Your task to perform on an android device: Open sound settings Image 0: 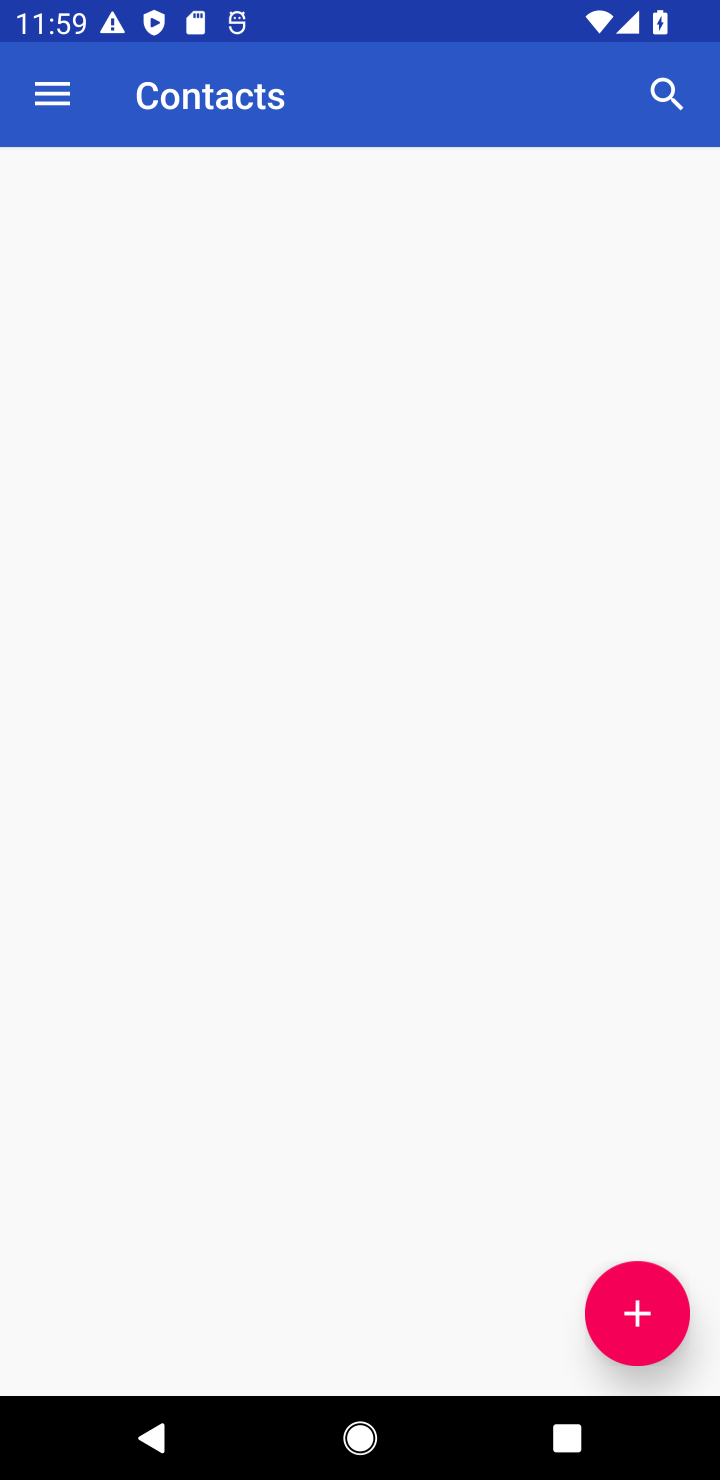
Step 0: press home button
Your task to perform on an android device: Open sound settings Image 1: 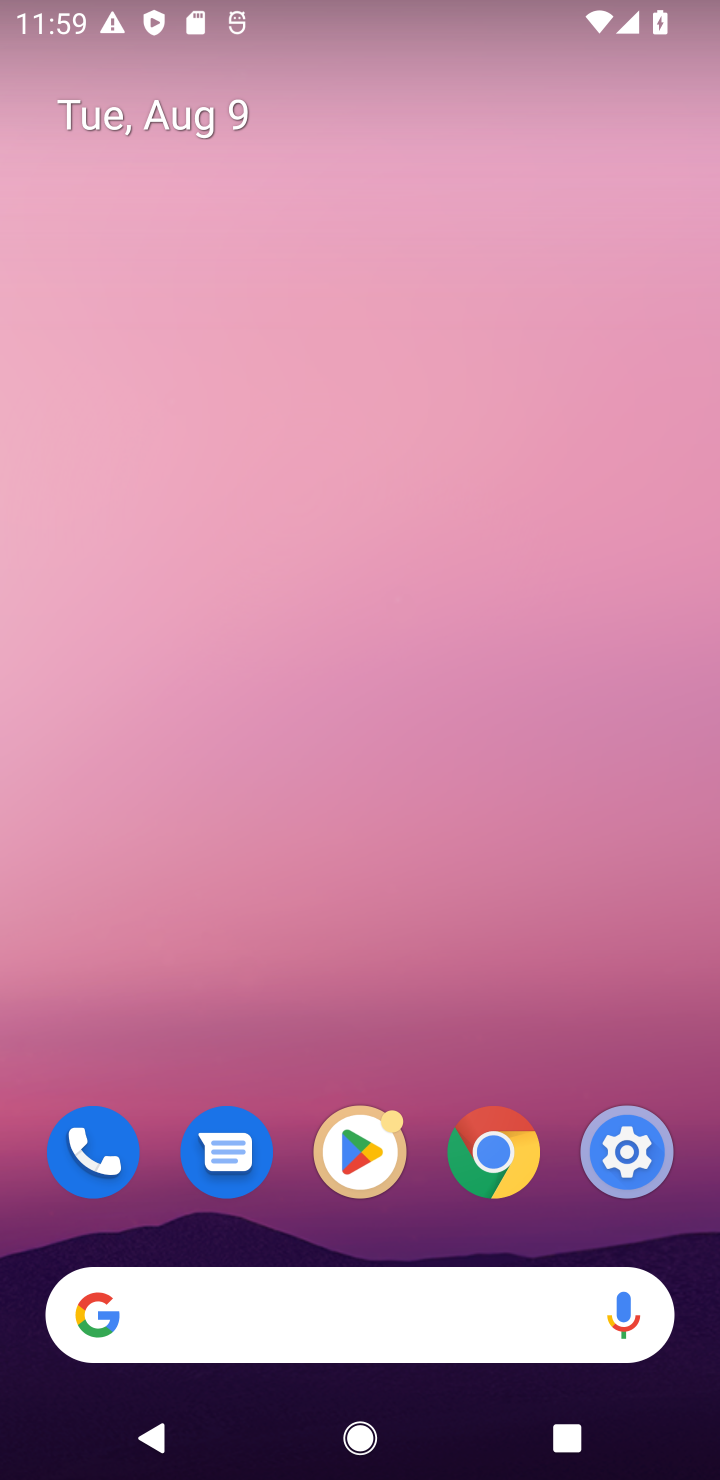
Step 1: click (626, 1134)
Your task to perform on an android device: Open sound settings Image 2: 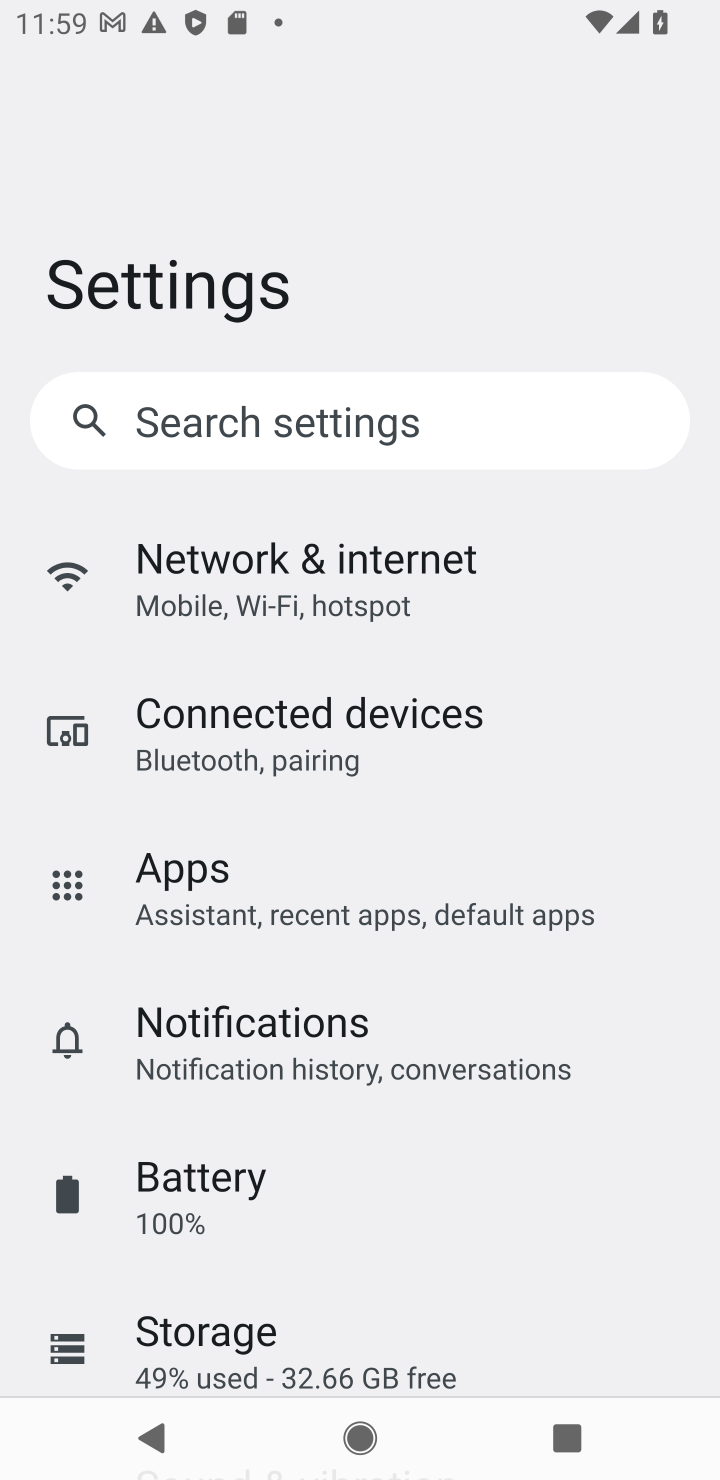
Step 2: drag from (580, 1163) to (455, 427)
Your task to perform on an android device: Open sound settings Image 3: 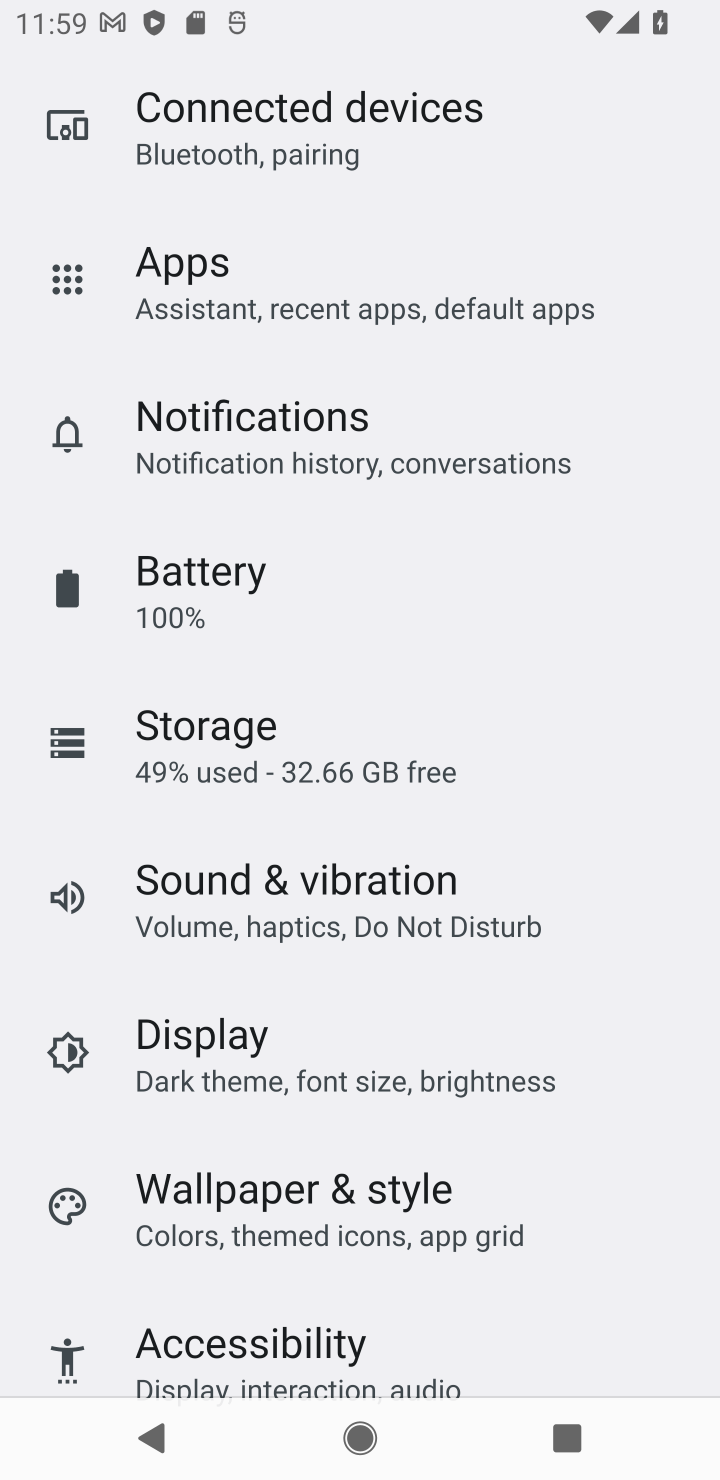
Step 3: drag from (439, 1058) to (373, 385)
Your task to perform on an android device: Open sound settings Image 4: 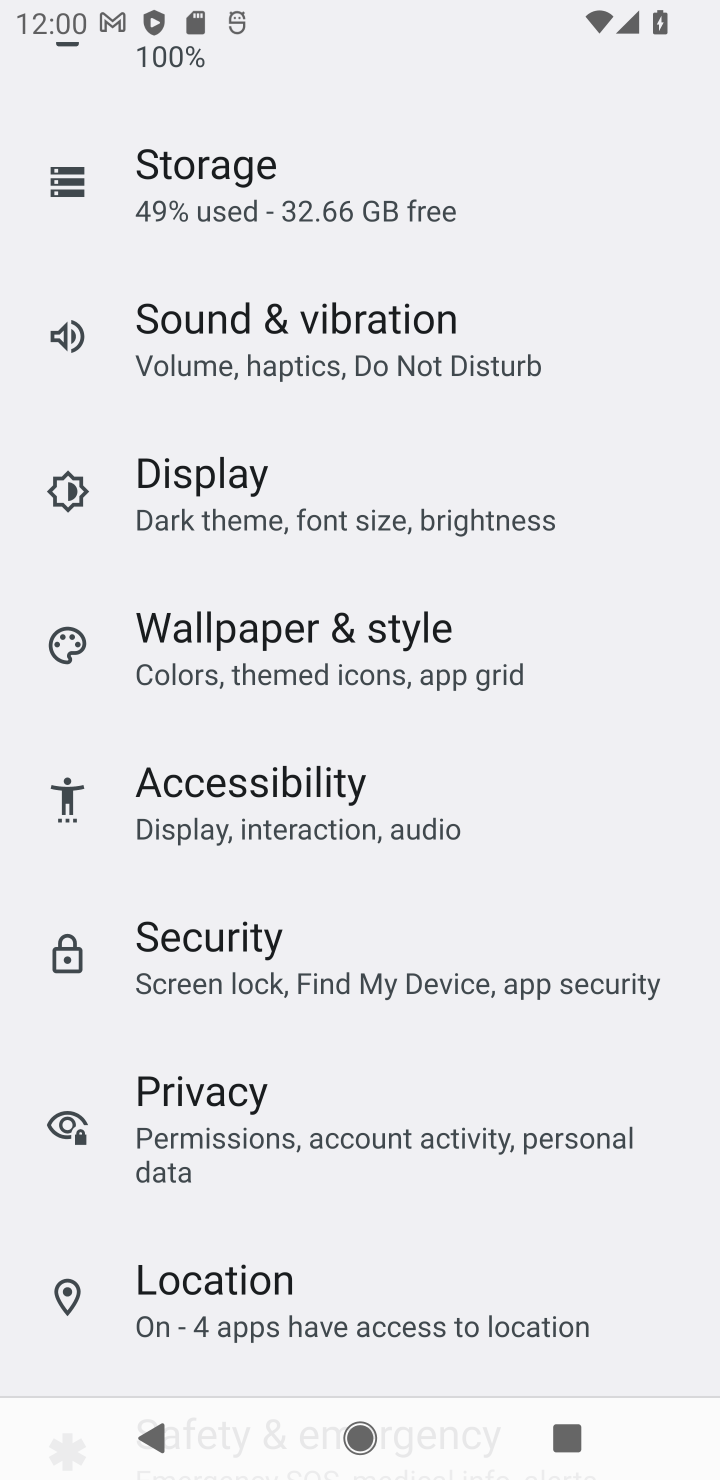
Step 4: drag from (428, 1006) to (306, 600)
Your task to perform on an android device: Open sound settings Image 5: 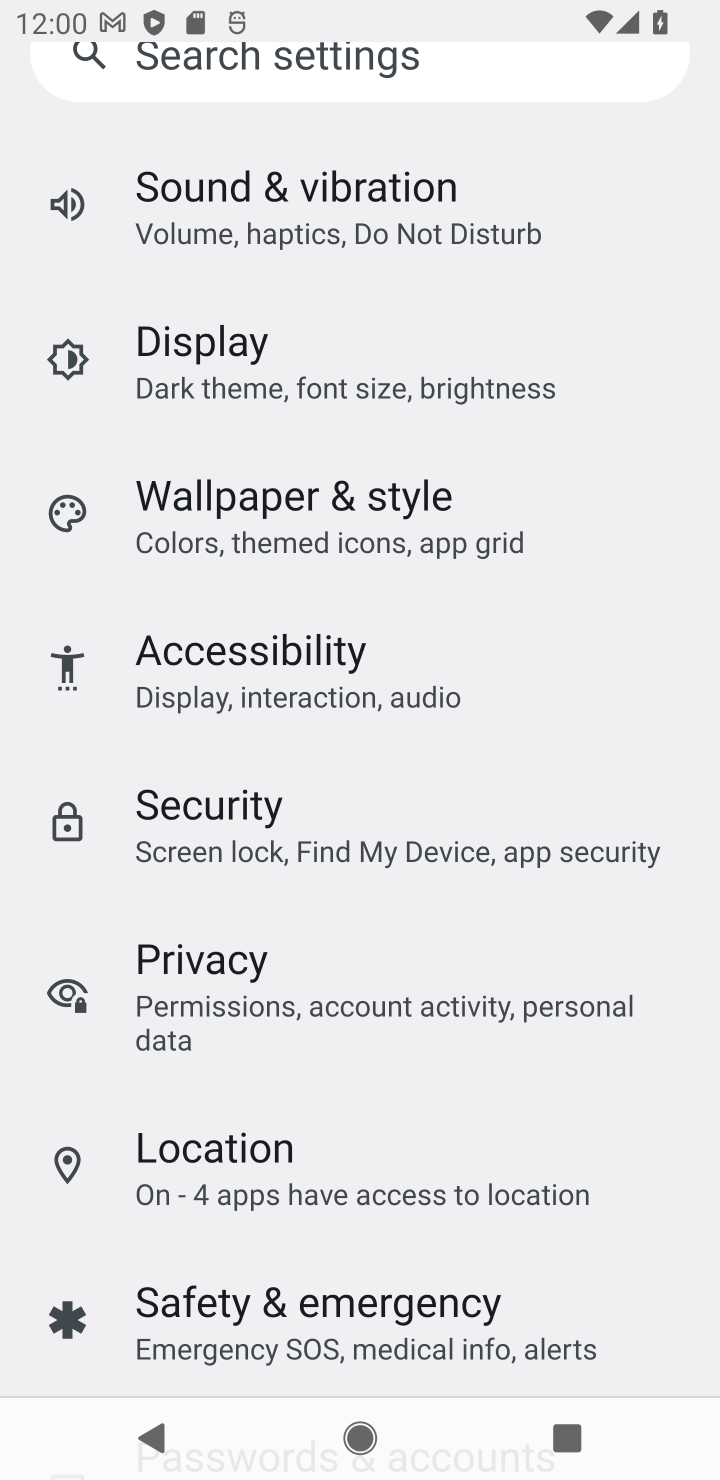
Step 5: click (174, 217)
Your task to perform on an android device: Open sound settings Image 6: 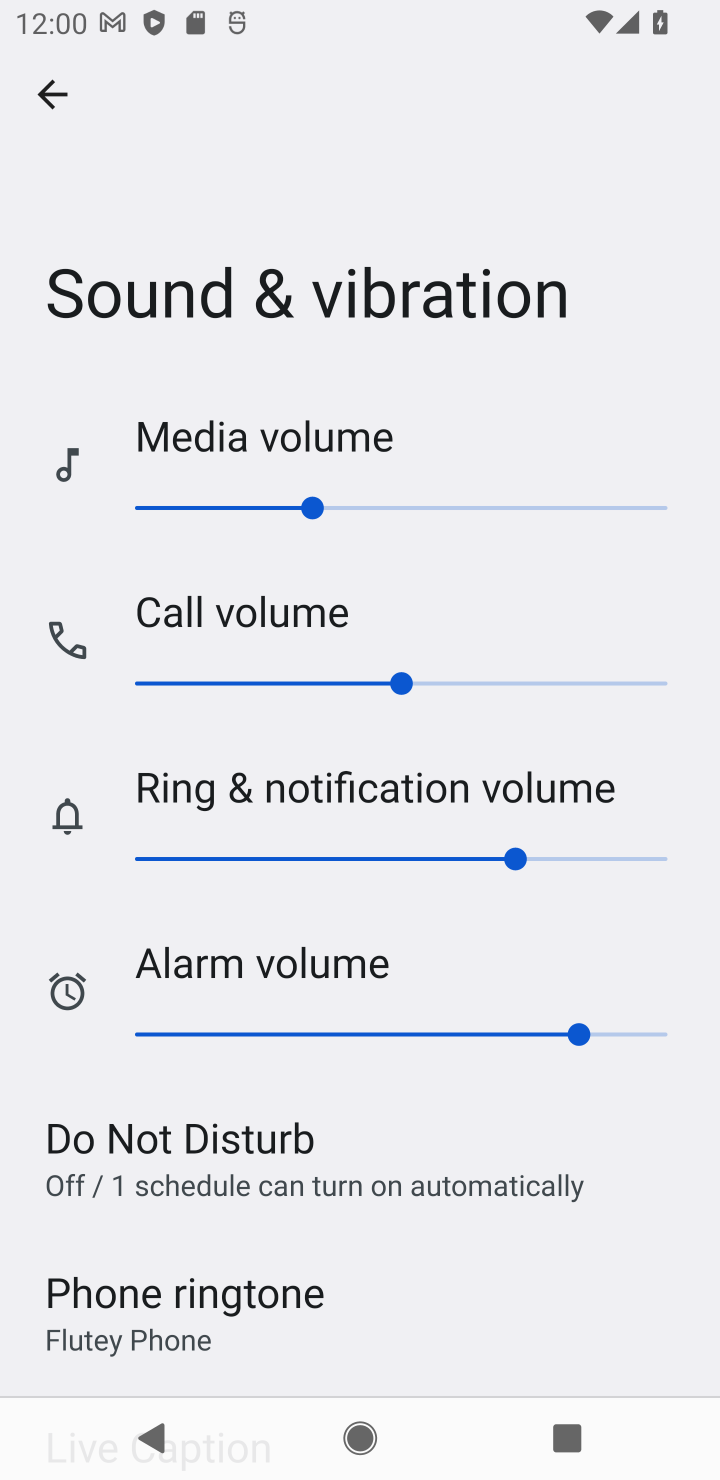
Step 6: task complete